Your task to perform on an android device: turn off wifi Image 0: 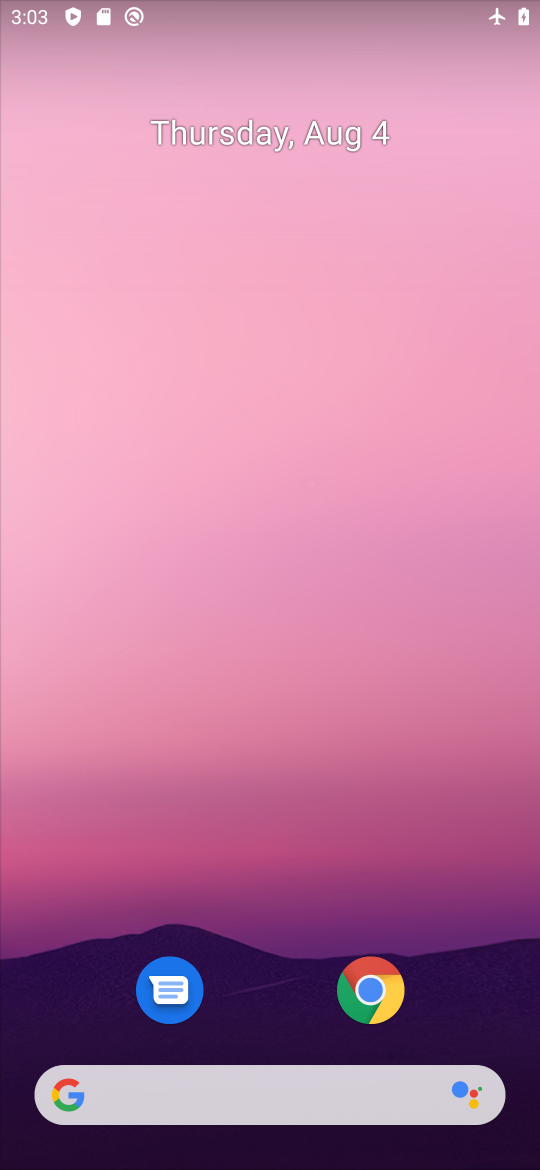
Step 0: drag from (267, 1048) to (248, 92)
Your task to perform on an android device: turn off wifi Image 1: 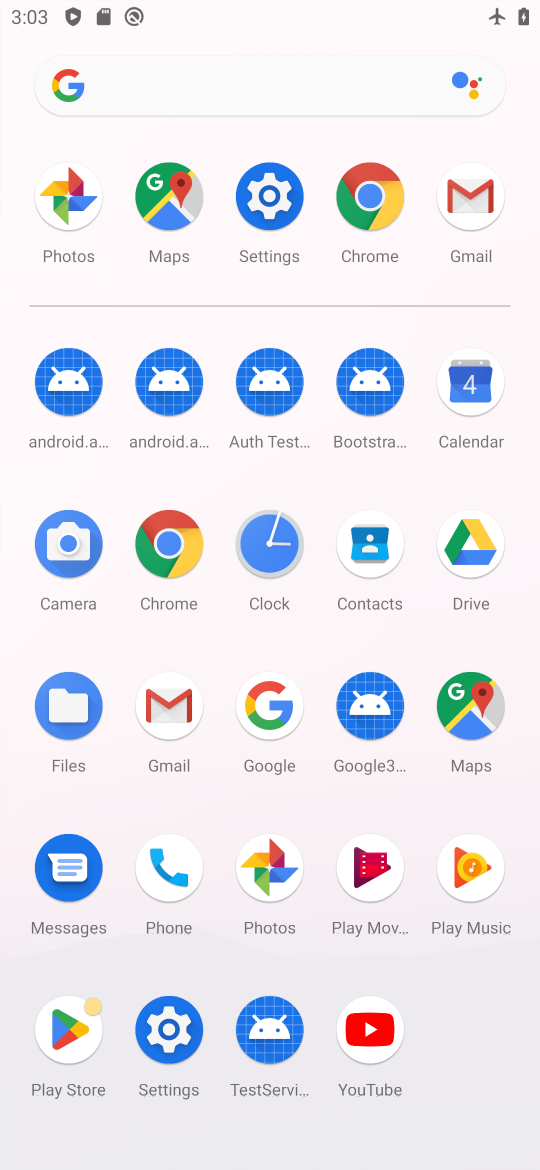
Step 1: click (254, 253)
Your task to perform on an android device: turn off wifi Image 2: 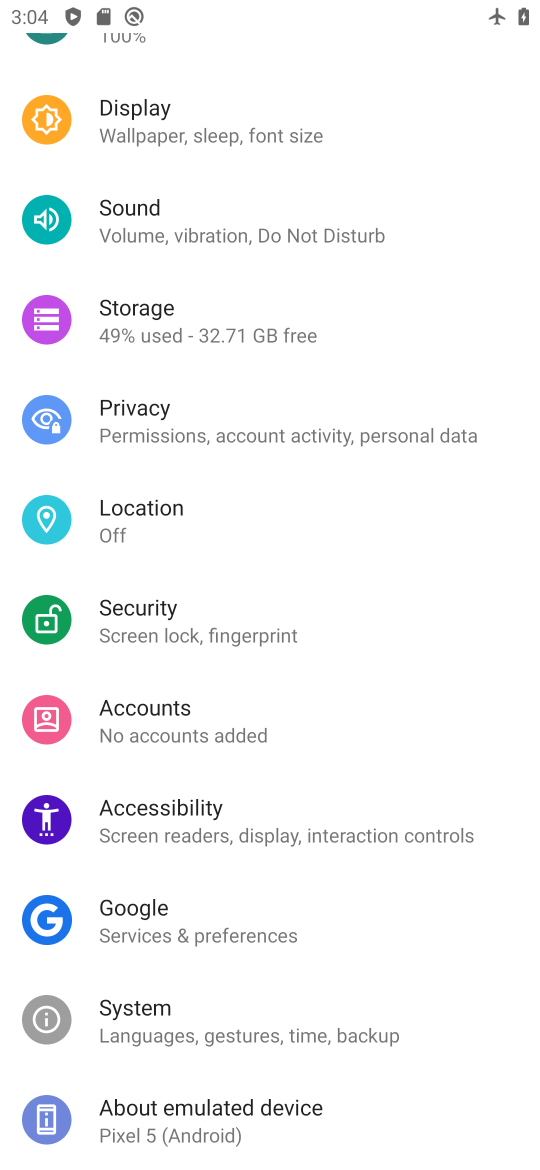
Step 2: task complete